Your task to perform on an android device: change keyboard looks Image 0: 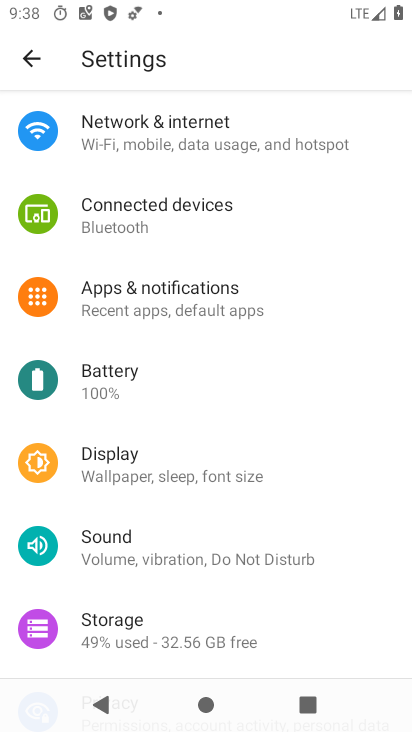
Step 0: click (369, 494)
Your task to perform on an android device: change keyboard looks Image 1: 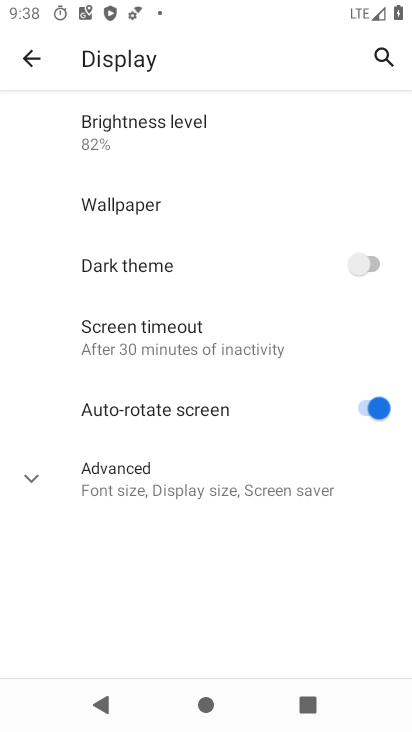
Step 1: click (49, 68)
Your task to perform on an android device: change keyboard looks Image 2: 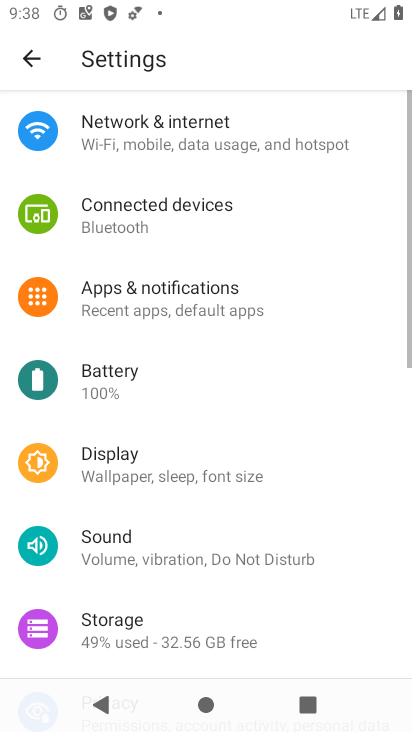
Step 2: drag from (187, 562) to (303, 69)
Your task to perform on an android device: change keyboard looks Image 3: 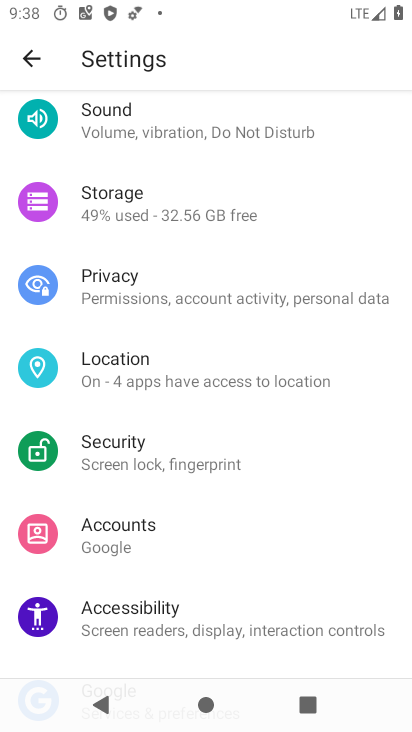
Step 3: drag from (212, 578) to (206, 10)
Your task to perform on an android device: change keyboard looks Image 4: 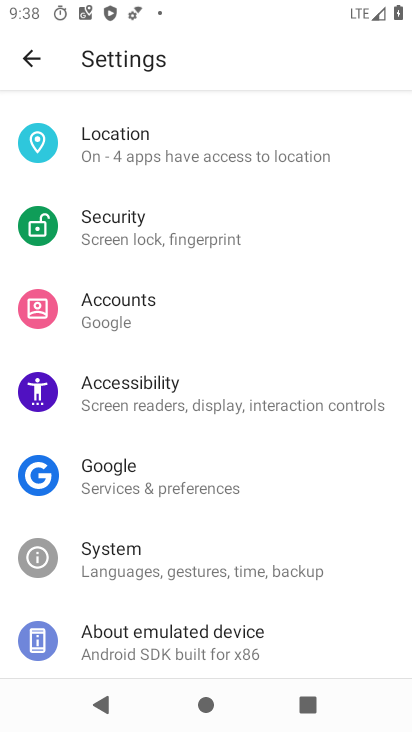
Step 4: click (141, 566)
Your task to perform on an android device: change keyboard looks Image 5: 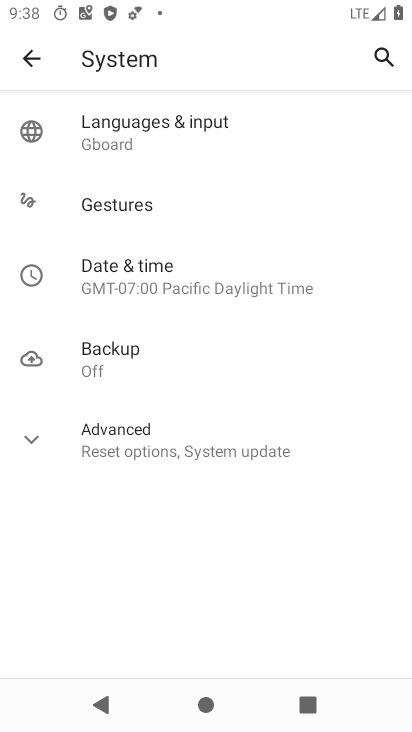
Step 5: click (146, 139)
Your task to perform on an android device: change keyboard looks Image 6: 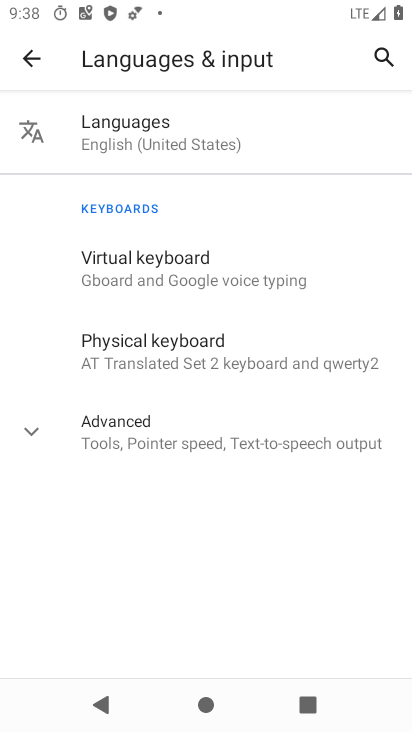
Step 6: click (202, 274)
Your task to perform on an android device: change keyboard looks Image 7: 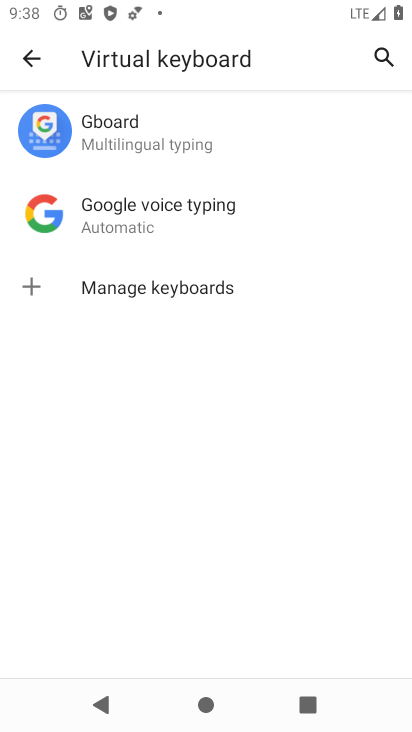
Step 7: click (143, 166)
Your task to perform on an android device: change keyboard looks Image 8: 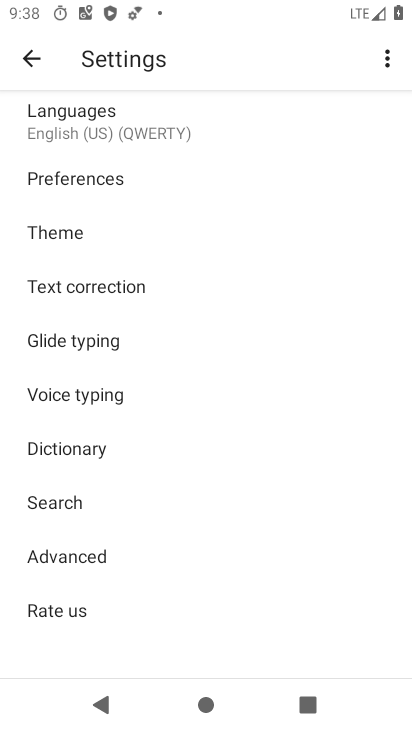
Step 8: drag from (286, 355) to (305, 157)
Your task to perform on an android device: change keyboard looks Image 9: 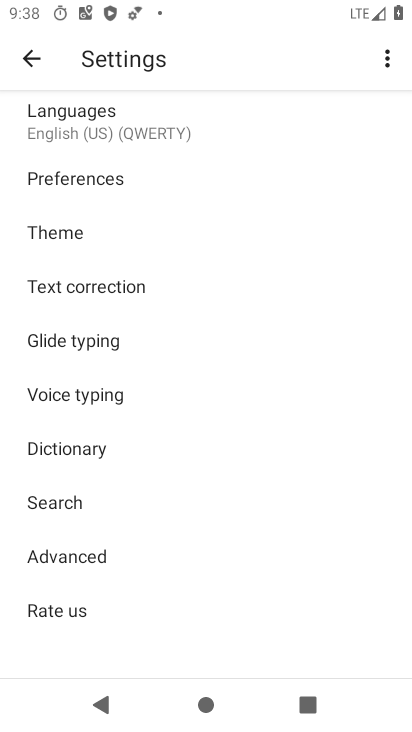
Step 9: click (84, 236)
Your task to perform on an android device: change keyboard looks Image 10: 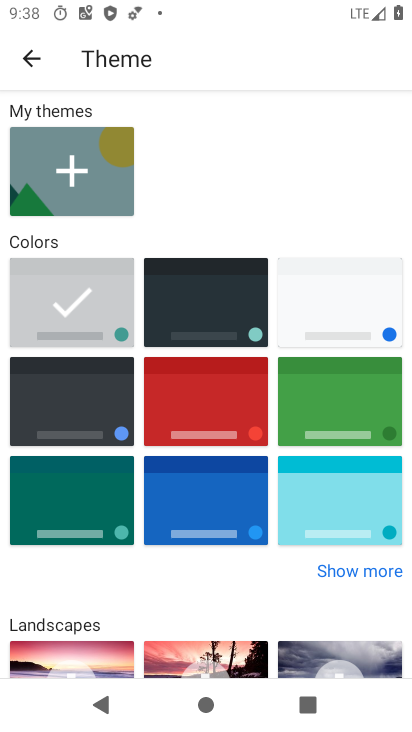
Step 10: click (187, 313)
Your task to perform on an android device: change keyboard looks Image 11: 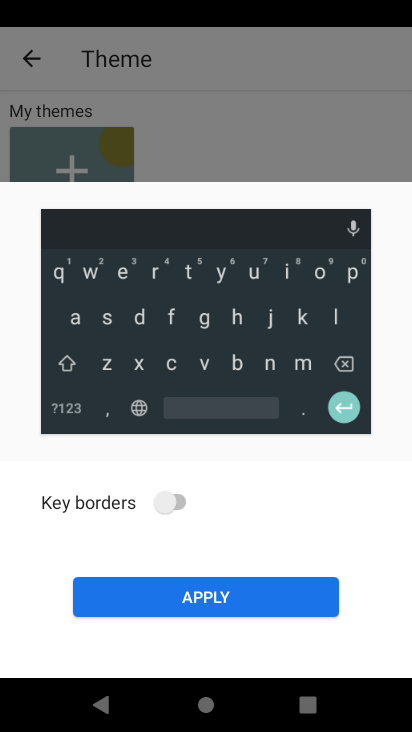
Step 11: click (219, 605)
Your task to perform on an android device: change keyboard looks Image 12: 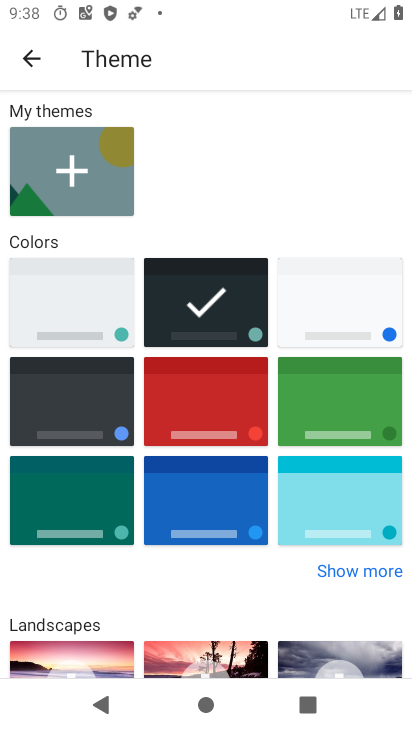
Step 12: task complete